Your task to perform on an android device: Show me popular videos on Youtube Image 0: 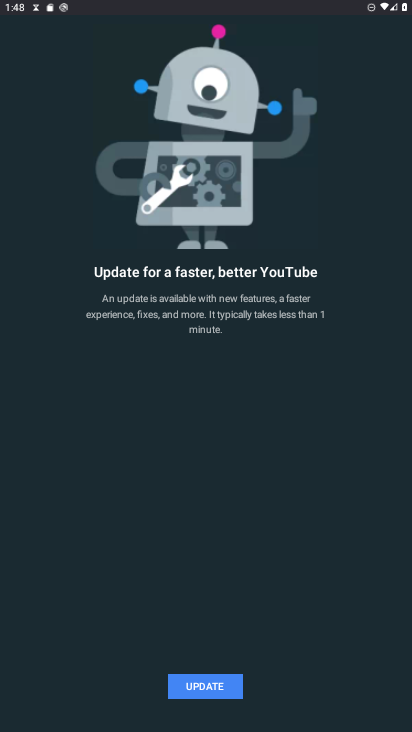
Step 0: press home button
Your task to perform on an android device: Show me popular videos on Youtube Image 1: 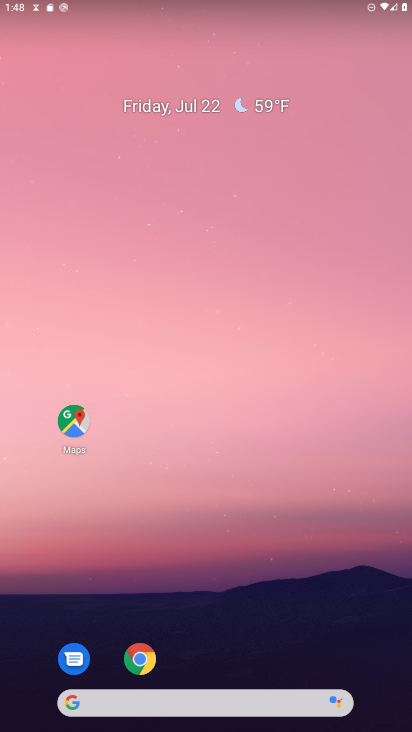
Step 1: drag from (255, 505) to (287, 141)
Your task to perform on an android device: Show me popular videos on Youtube Image 2: 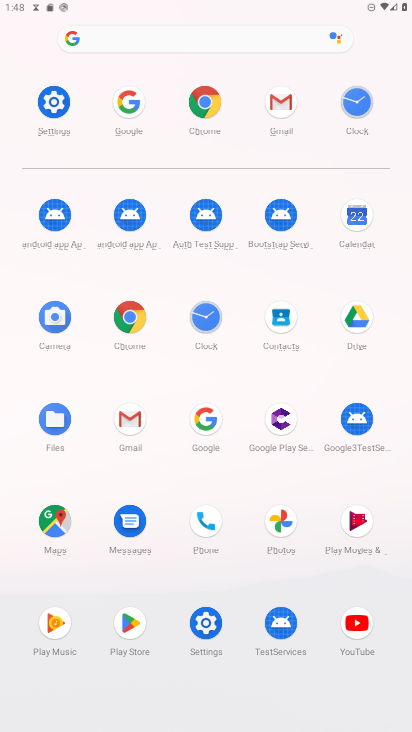
Step 2: click (358, 633)
Your task to perform on an android device: Show me popular videos on Youtube Image 3: 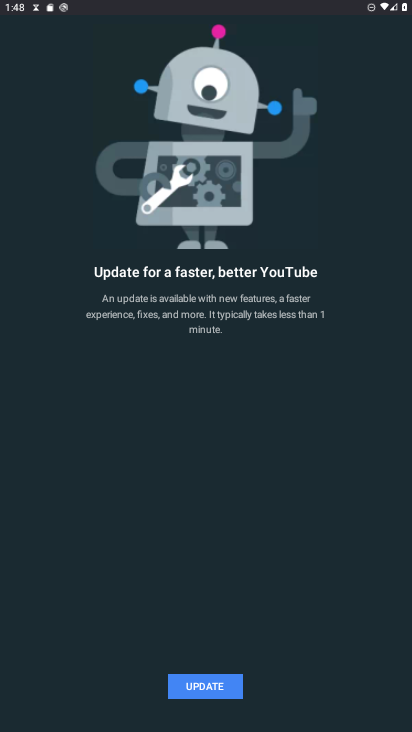
Step 3: click (215, 690)
Your task to perform on an android device: Show me popular videos on Youtube Image 4: 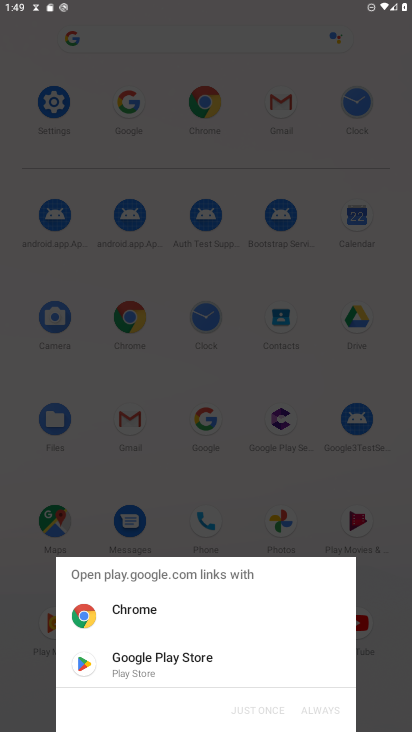
Step 4: click (118, 664)
Your task to perform on an android device: Show me popular videos on Youtube Image 5: 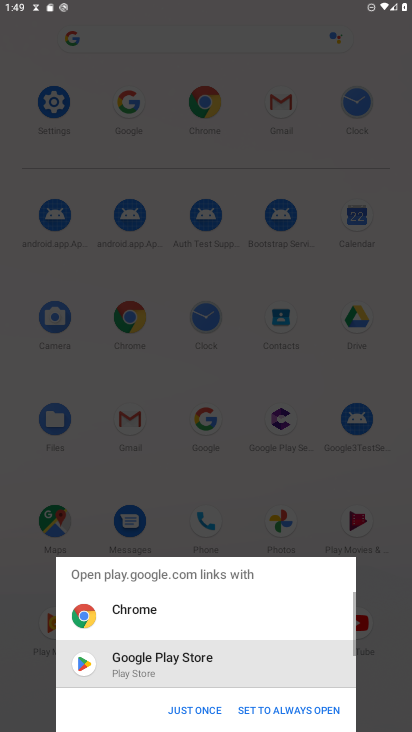
Step 5: click (192, 711)
Your task to perform on an android device: Show me popular videos on Youtube Image 6: 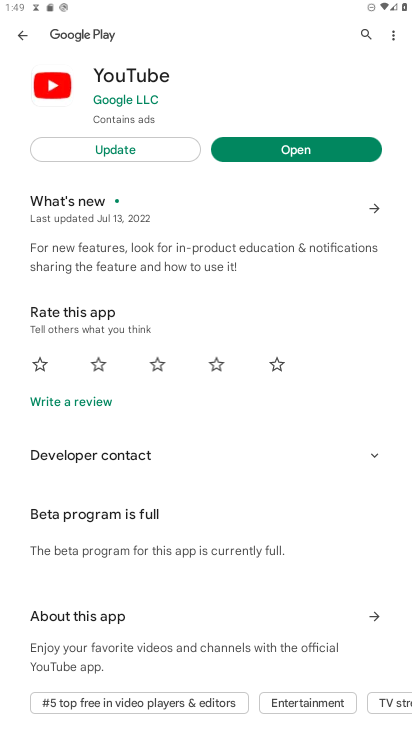
Step 6: click (144, 151)
Your task to perform on an android device: Show me popular videos on Youtube Image 7: 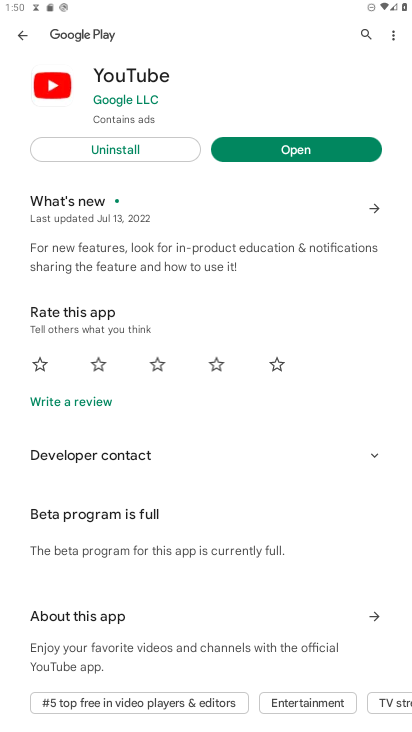
Step 7: click (310, 150)
Your task to perform on an android device: Show me popular videos on Youtube Image 8: 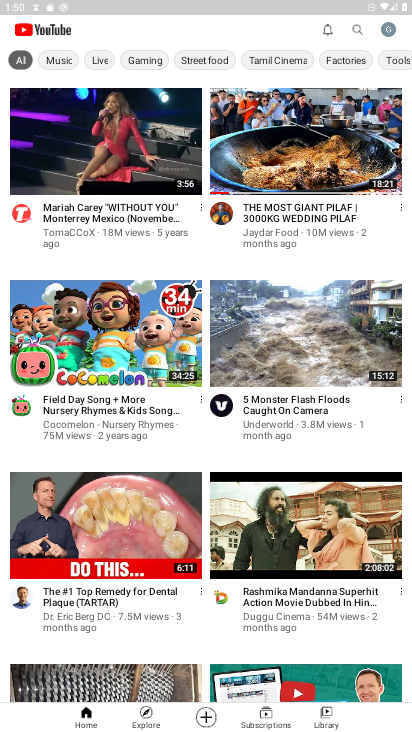
Step 8: click (356, 30)
Your task to perform on an android device: Show me popular videos on Youtube Image 9: 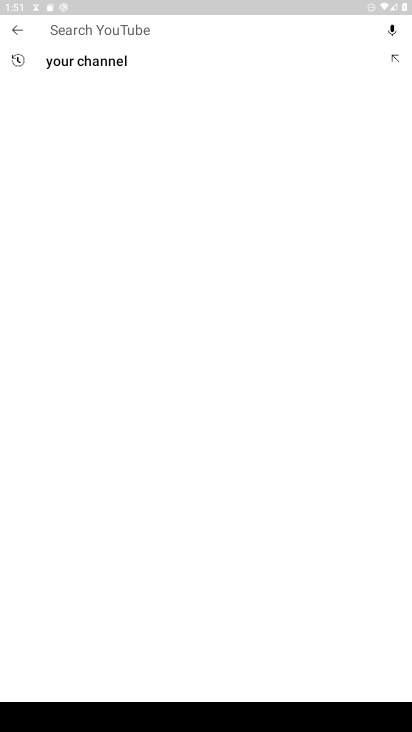
Step 9: type "popular videos"
Your task to perform on an android device: Show me popular videos on Youtube Image 10: 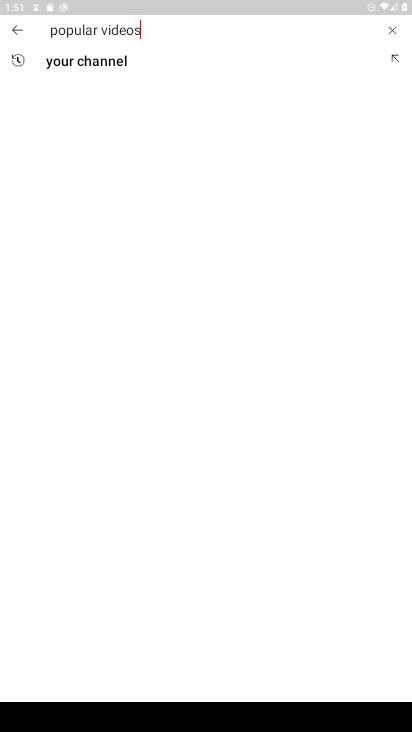
Step 10: press enter
Your task to perform on an android device: Show me popular videos on Youtube Image 11: 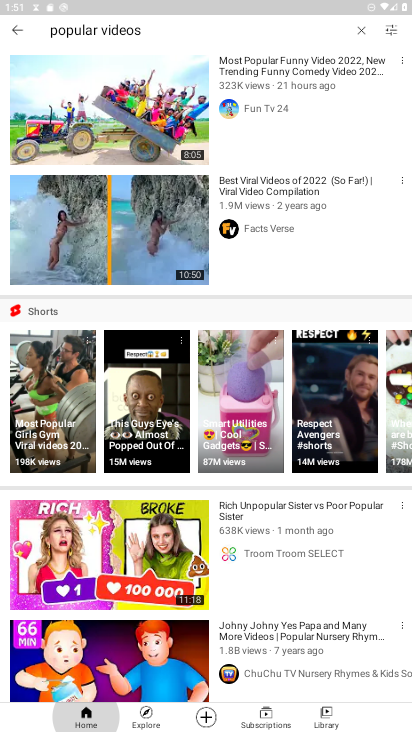
Step 11: task complete